Your task to perform on an android device: add a label to a message in the gmail app Image 0: 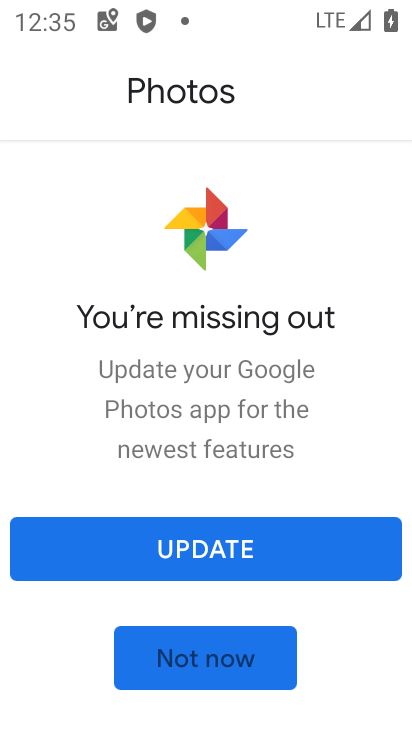
Step 0: press home button
Your task to perform on an android device: add a label to a message in the gmail app Image 1: 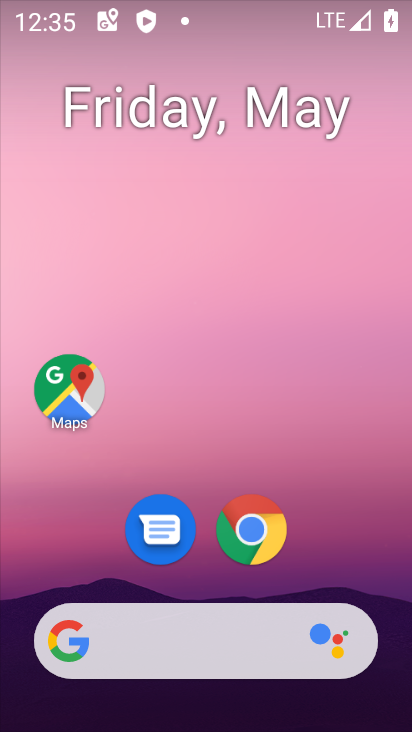
Step 1: drag from (335, 564) to (306, 280)
Your task to perform on an android device: add a label to a message in the gmail app Image 2: 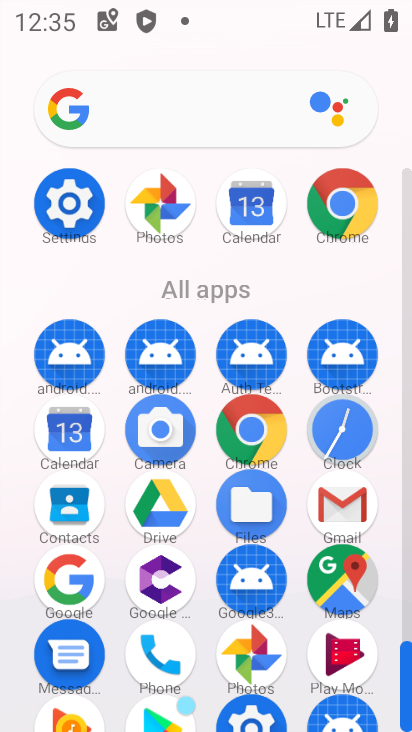
Step 2: click (340, 509)
Your task to perform on an android device: add a label to a message in the gmail app Image 3: 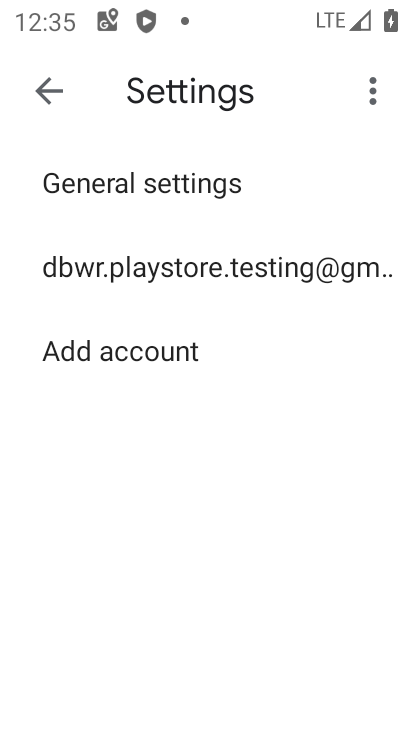
Step 3: press back button
Your task to perform on an android device: add a label to a message in the gmail app Image 4: 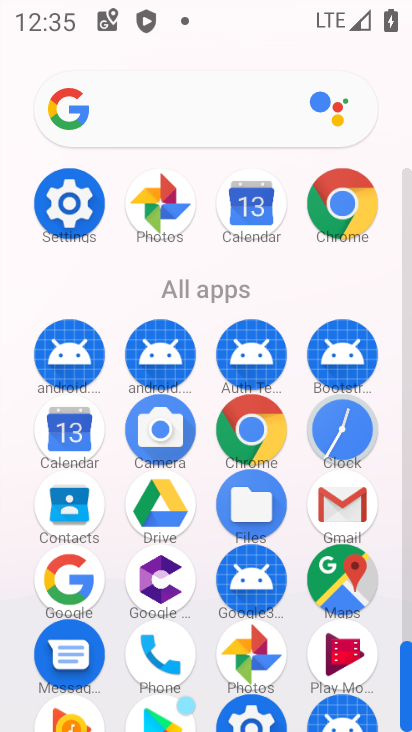
Step 4: click (340, 512)
Your task to perform on an android device: add a label to a message in the gmail app Image 5: 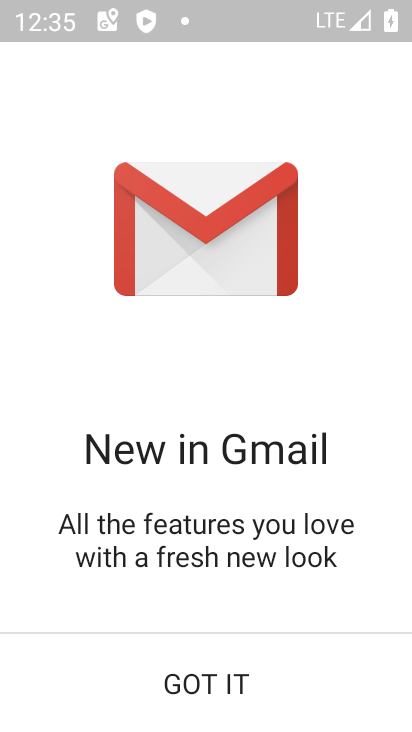
Step 5: click (194, 694)
Your task to perform on an android device: add a label to a message in the gmail app Image 6: 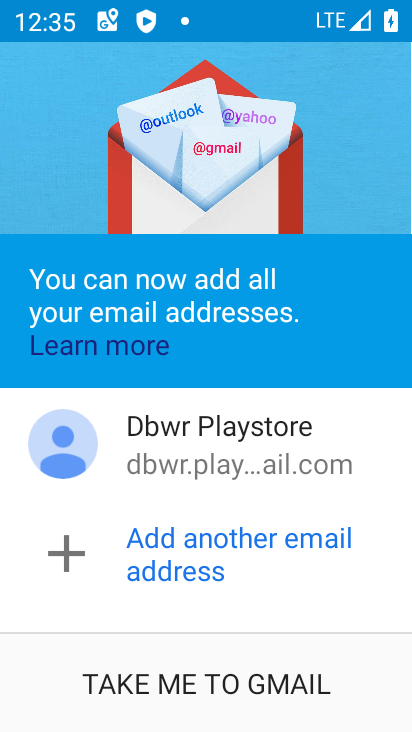
Step 6: click (180, 686)
Your task to perform on an android device: add a label to a message in the gmail app Image 7: 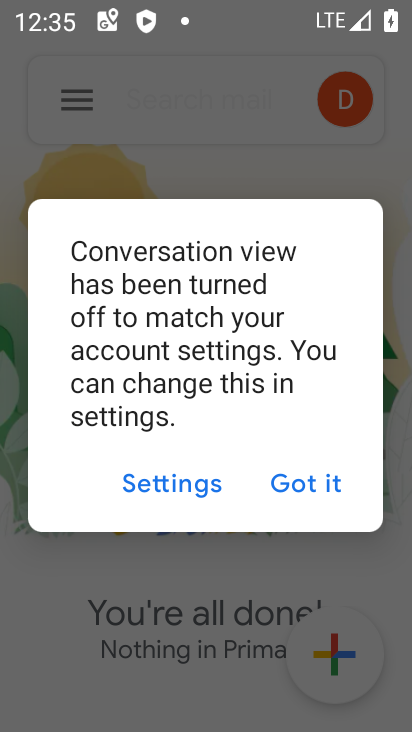
Step 7: click (327, 491)
Your task to perform on an android device: add a label to a message in the gmail app Image 8: 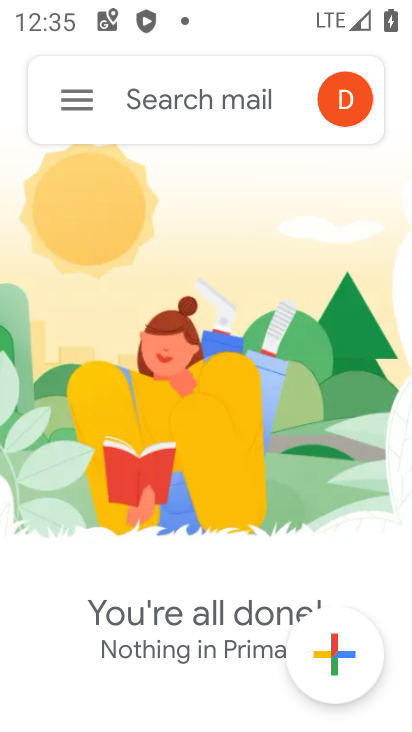
Step 8: click (83, 107)
Your task to perform on an android device: add a label to a message in the gmail app Image 9: 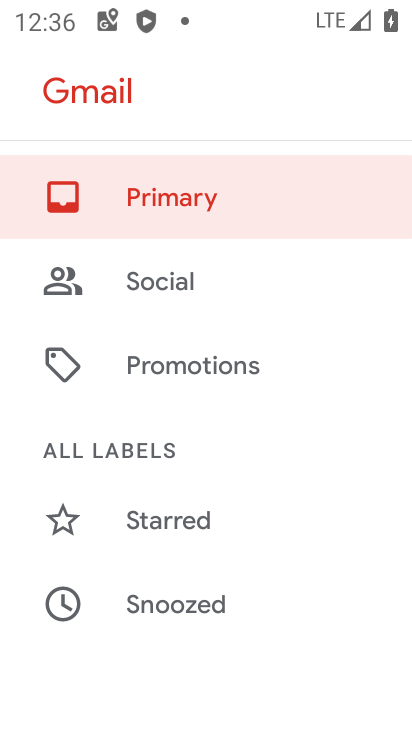
Step 9: task complete